Your task to perform on an android device: Empty the shopping cart on newegg.com. Add beats solo 3 to the cart on newegg.com Image 0: 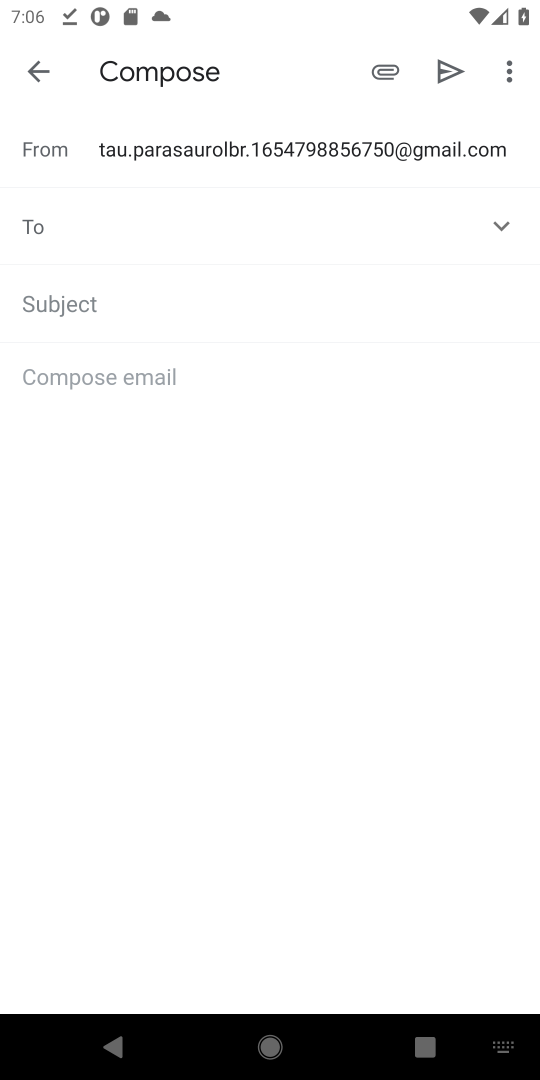
Step 0: press home button
Your task to perform on an android device: Empty the shopping cart on newegg.com. Add beats solo 3 to the cart on newegg.com Image 1: 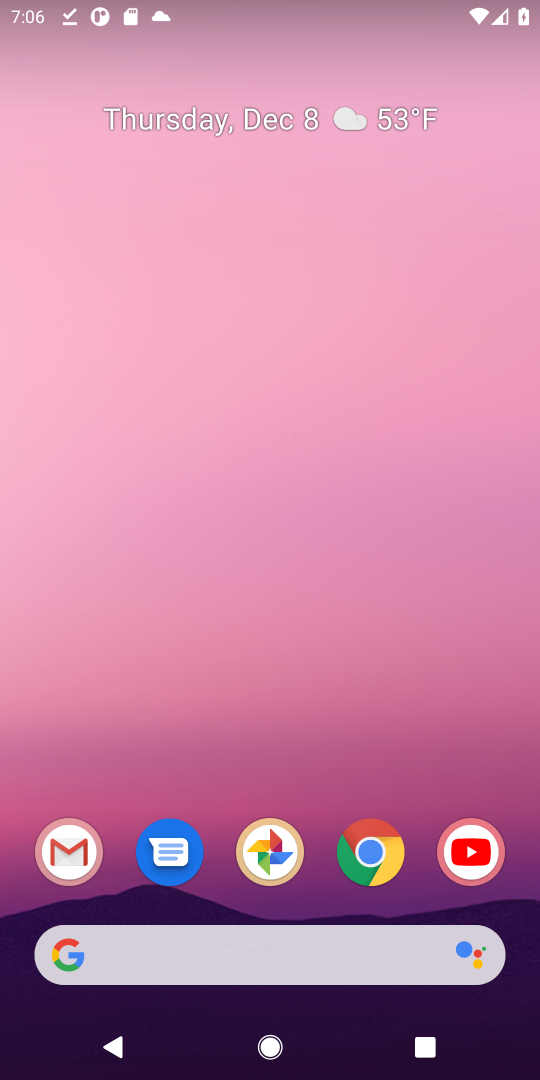
Step 1: click (205, 957)
Your task to perform on an android device: Empty the shopping cart on newegg.com. Add beats solo 3 to the cart on newegg.com Image 2: 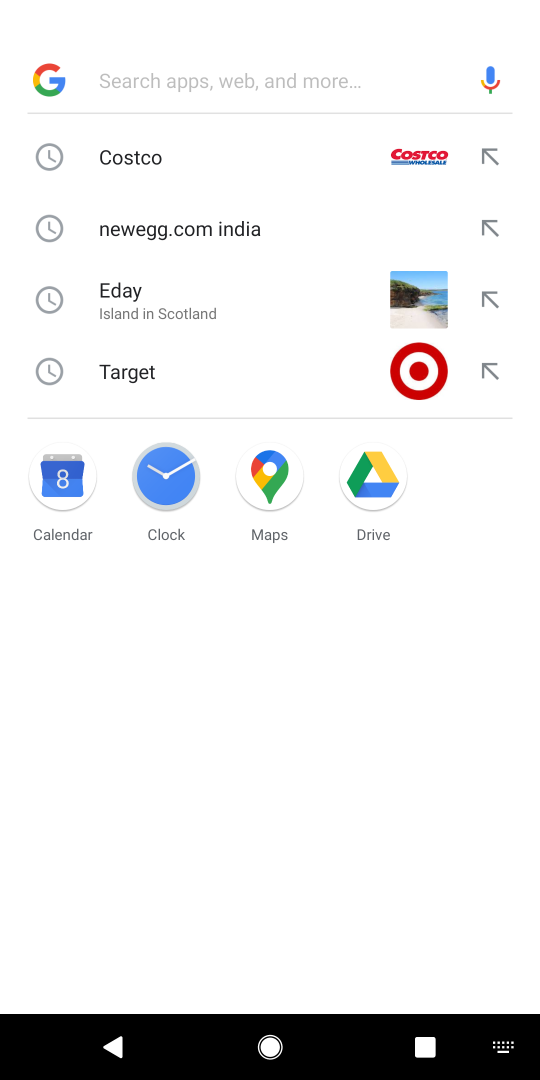
Step 2: click (194, 240)
Your task to perform on an android device: Empty the shopping cart on newegg.com. Add beats solo 3 to the cart on newegg.com Image 3: 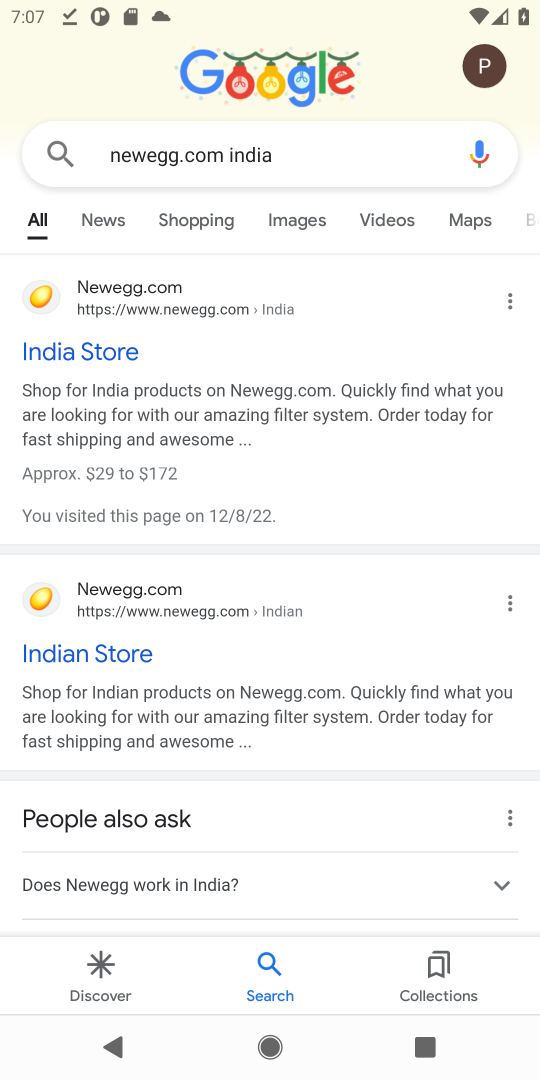
Step 3: click (194, 240)
Your task to perform on an android device: Empty the shopping cart on newegg.com. Add beats solo 3 to the cart on newegg.com Image 4: 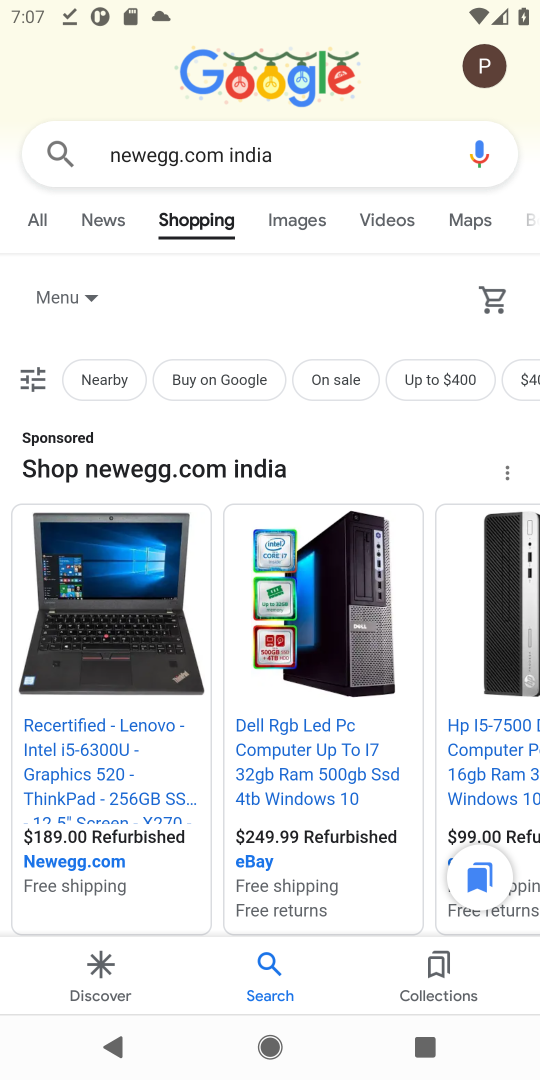
Step 4: click (148, 667)
Your task to perform on an android device: Empty the shopping cart on newegg.com. Add beats solo 3 to the cart on newegg.com Image 5: 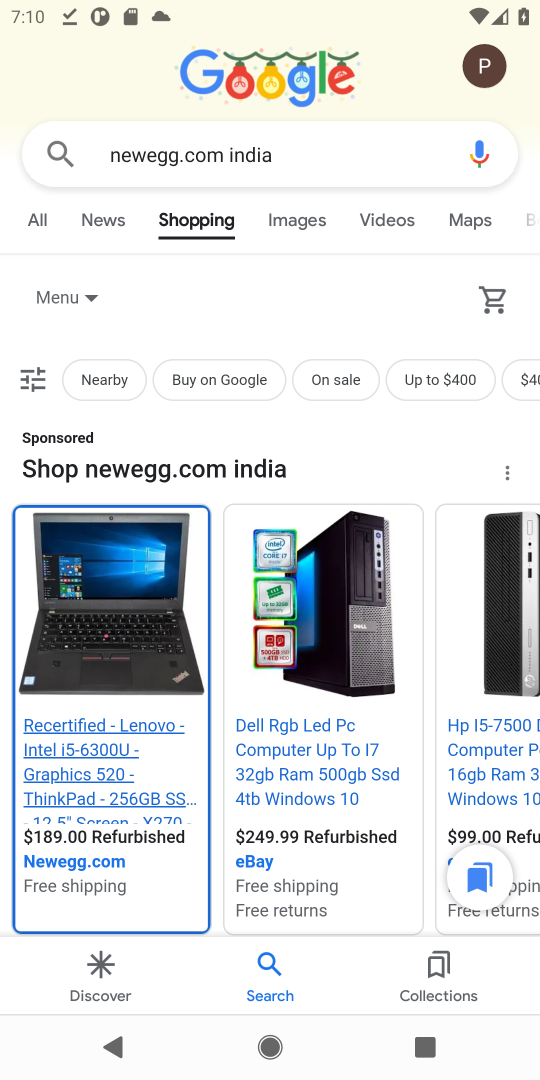
Step 5: task complete